Your task to perform on an android device: What's the weather going to be tomorrow? Image 0: 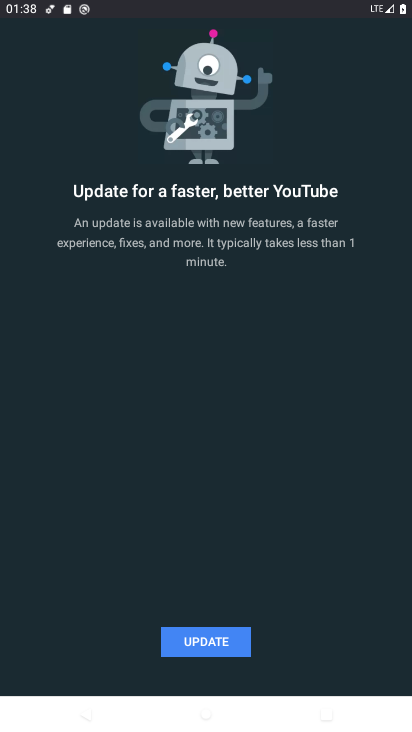
Step 0: press home button
Your task to perform on an android device: What's the weather going to be tomorrow? Image 1: 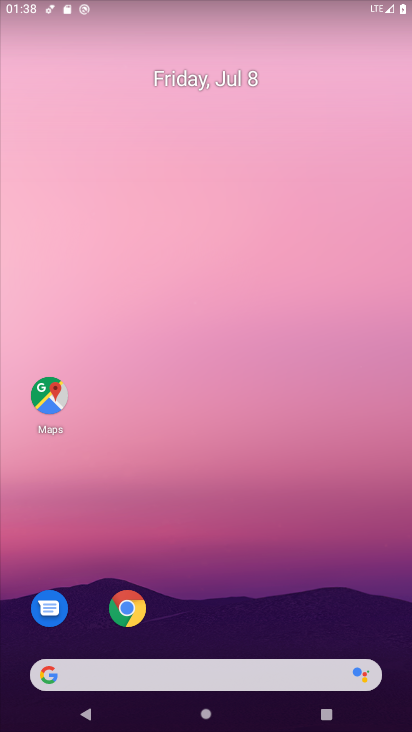
Step 1: drag from (214, 611) to (267, 174)
Your task to perform on an android device: What's the weather going to be tomorrow? Image 2: 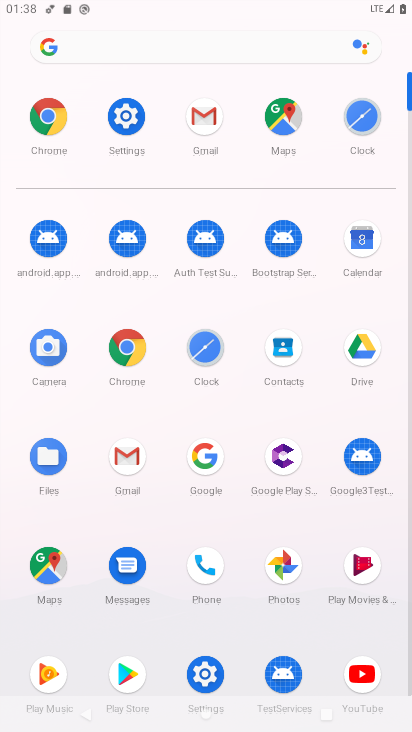
Step 2: click (50, 106)
Your task to perform on an android device: What's the weather going to be tomorrow? Image 3: 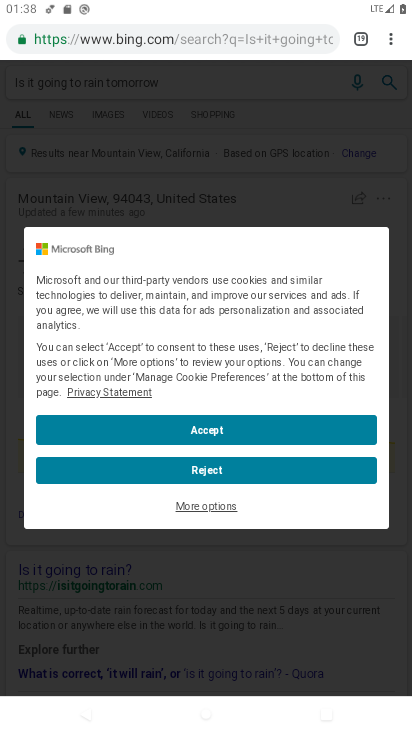
Step 3: click (394, 25)
Your task to perform on an android device: What's the weather going to be tomorrow? Image 4: 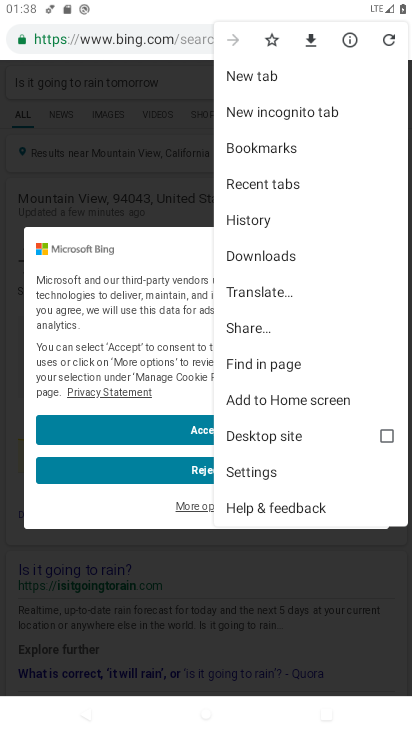
Step 4: click (274, 83)
Your task to perform on an android device: What's the weather going to be tomorrow? Image 5: 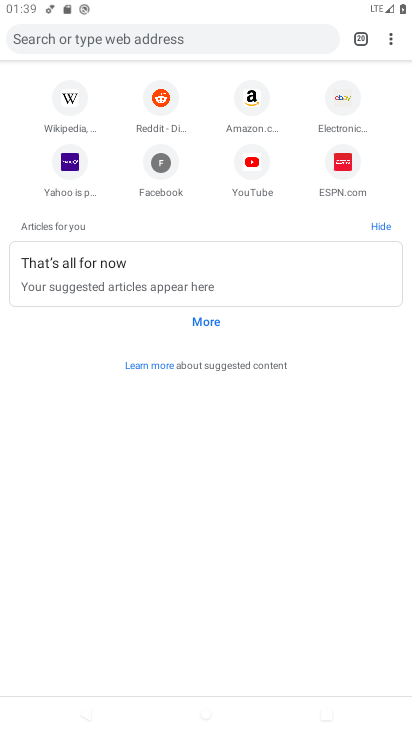
Step 5: click (160, 35)
Your task to perform on an android device: What's the weather going to be tomorrow? Image 6: 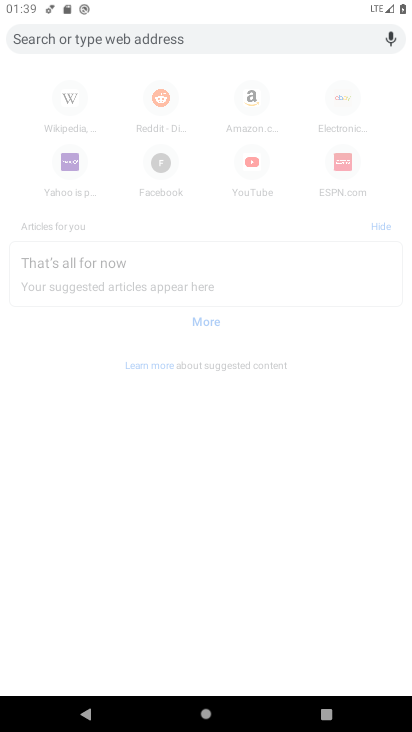
Step 6: type "What's the weather going to be tomorrow? "
Your task to perform on an android device: What's the weather going to be tomorrow? Image 7: 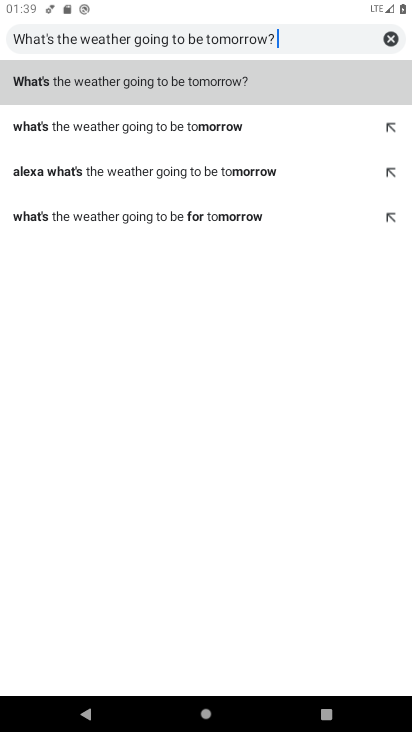
Step 7: click (202, 62)
Your task to perform on an android device: What's the weather going to be tomorrow? Image 8: 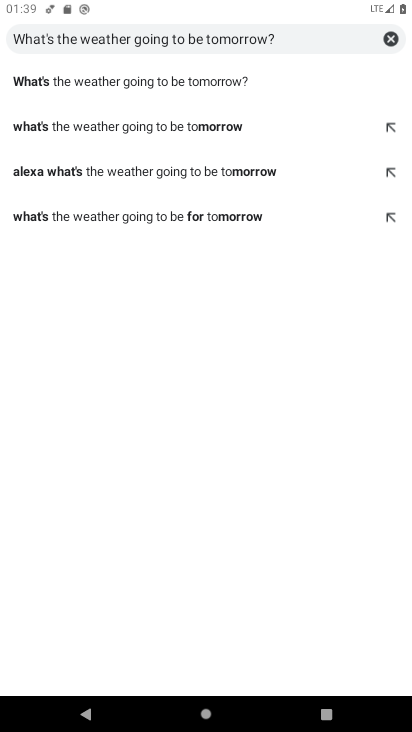
Step 8: click (210, 84)
Your task to perform on an android device: What's the weather going to be tomorrow? Image 9: 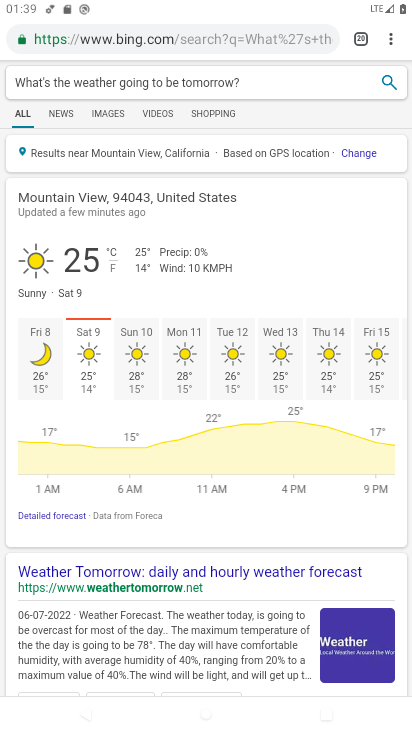
Step 9: task complete